Your task to perform on an android device: turn off translation in the chrome app Image 0: 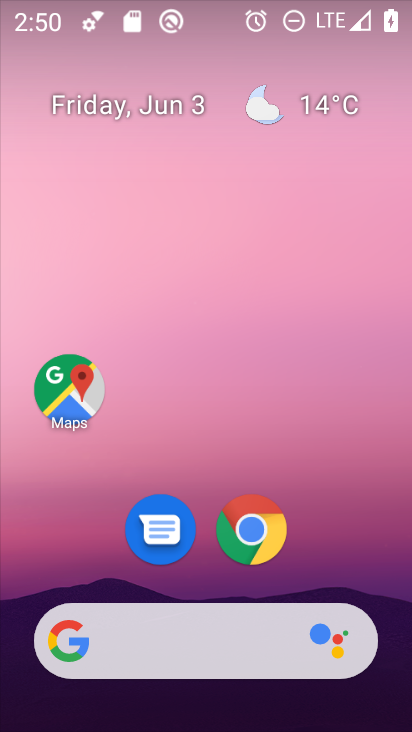
Step 0: drag from (362, 578) to (365, 271)
Your task to perform on an android device: turn off translation in the chrome app Image 1: 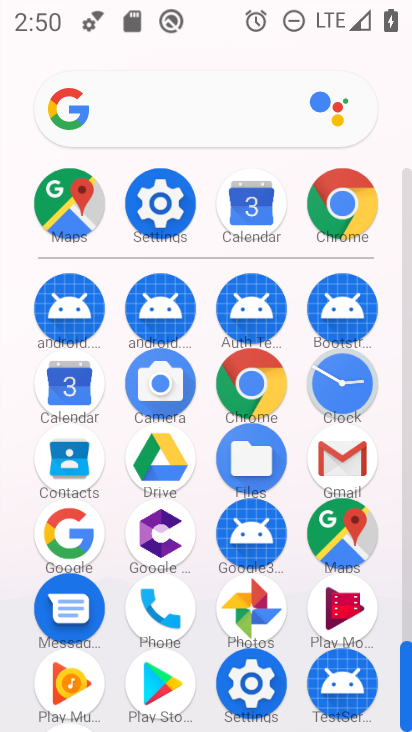
Step 1: click (254, 384)
Your task to perform on an android device: turn off translation in the chrome app Image 2: 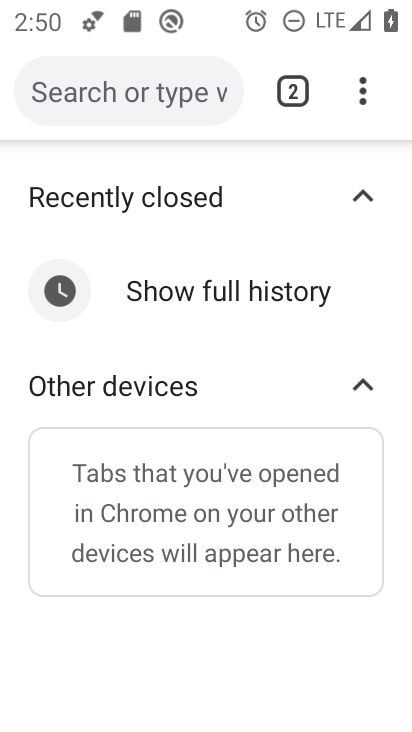
Step 2: click (362, 105)
Your task to perform on an android device: turn off translation in the chrome app Image 3: 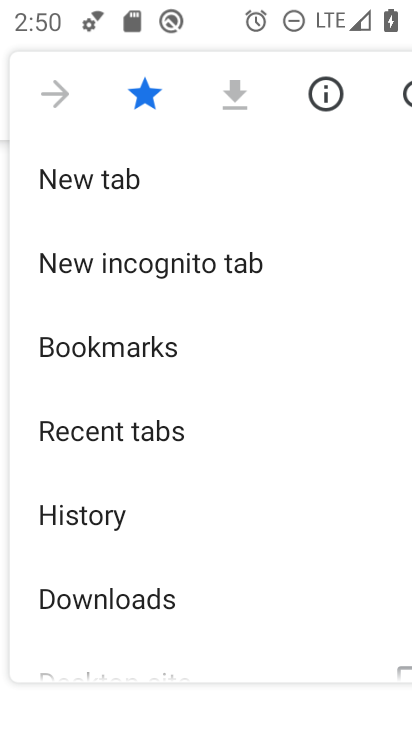
Step 3: drag from (296, 494) to (309, 415)
Your task to perform on an android device: turn off translation in the chrome app Image 4: 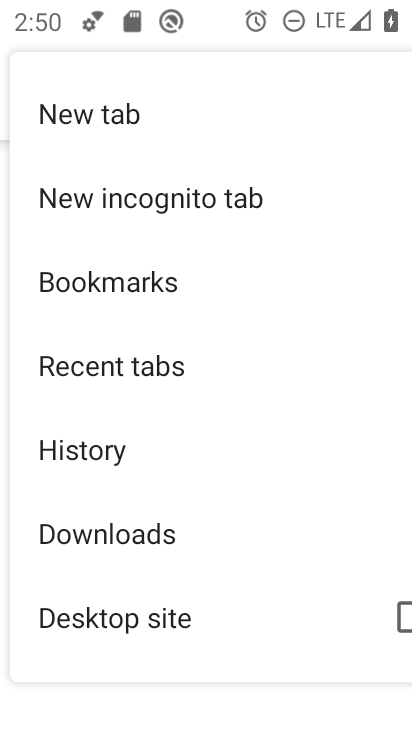
Step 4: drag from (300, 486) to (294, 374)
Your task to perform on an android device: turn off translation in the chrome app Image 5: 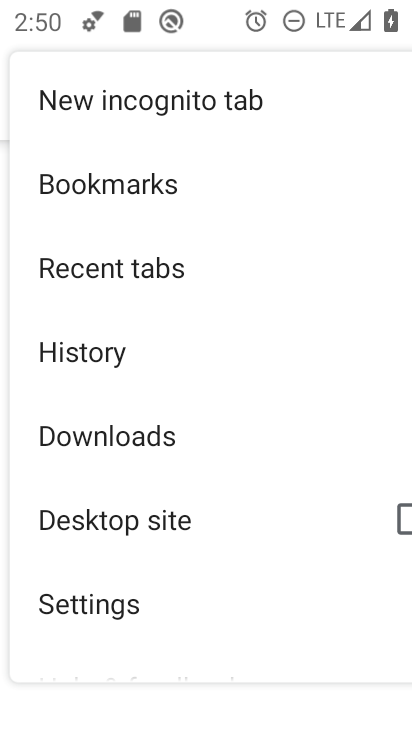
Step 5: drag from (303, 514) to (295, 383)
Your task to perform on an android device: turn off translation in the chrome app Image 6: 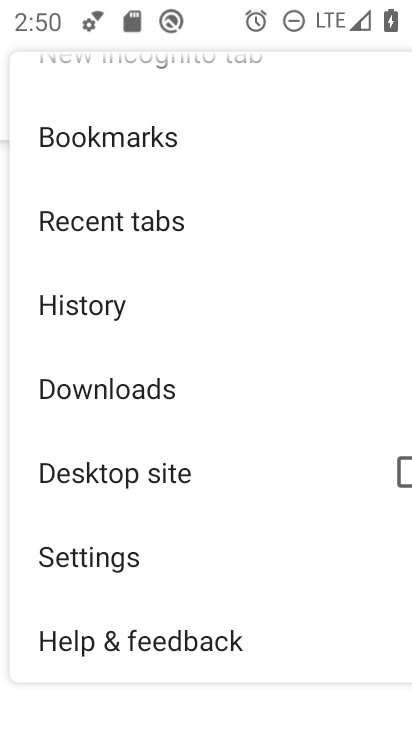
Step 6: click (144, 567)
Your task to perform on an android device: turn off translation in the chrome app Image 7: 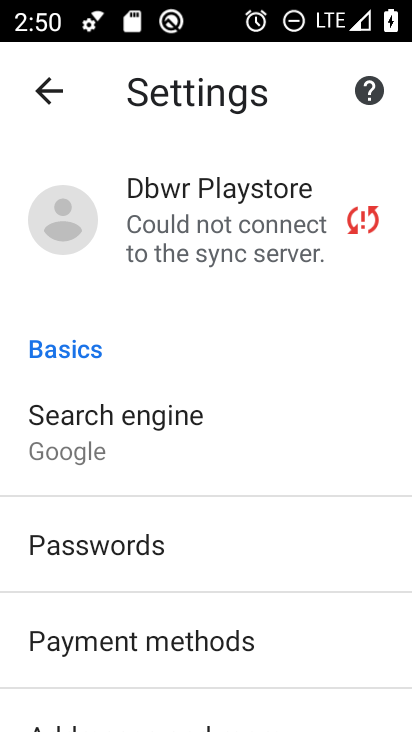
Step 7: drag from (292, 517) to (298, 427)
Your task to perform on an android device: turn off translation in the chrome app Image 8: 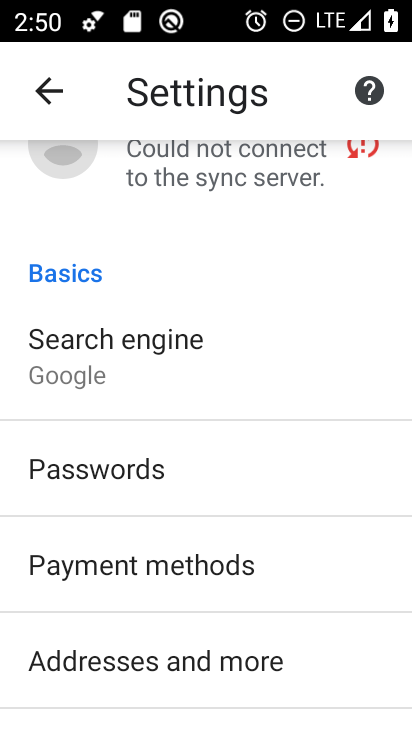
Step 8: drag from (316, 538) to (312, 424)
Your task to perform on an android device: turn off translation in the chrome app Image 9: 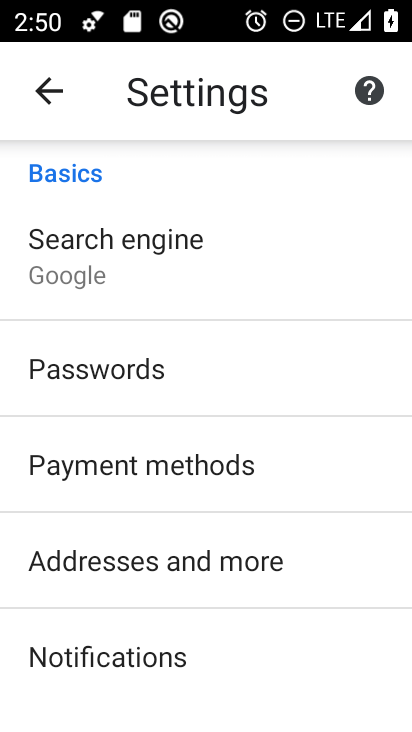
Step 9: drag from (327, 570) to (347, 436)
Your task to perform on an android device: turn off translation in the chrome app Image 10: 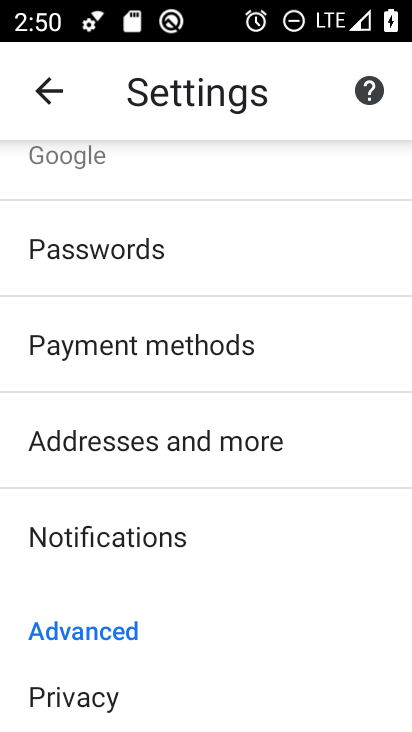
Step 10: drag from (345, 575) to (360, 430)
Your task to perform on an android device: turn off translation in the chrome app Image 11: 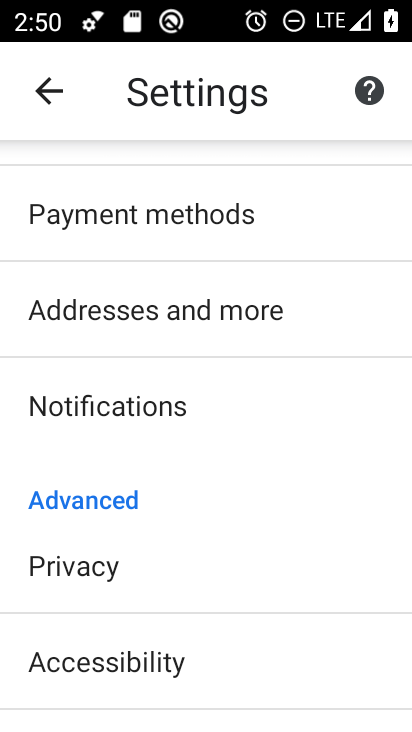
Step 11: drag from (343, 578) to (326, 481)
Your task to perform on an android device: turn off translation in the chrome app Image 12: 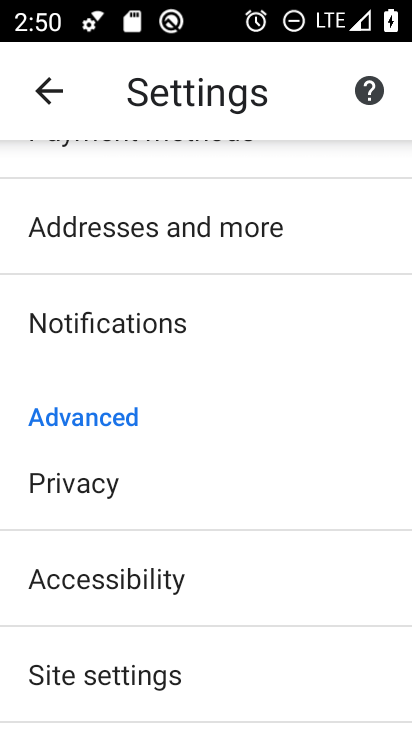
Step 12: drag from (324, 603) to (329, 499)
Your task to perform on an android device: turn off translation in the chrome app Image 13: 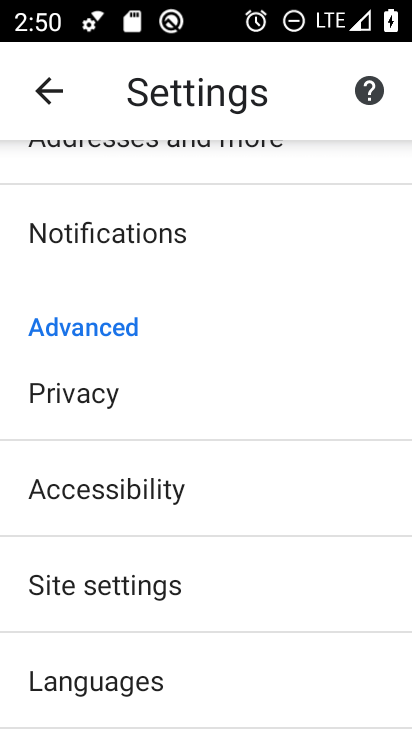
Step 13: drag from (333, 585) to (328, 458)
Your task to perform on an android device: turn off translation in the chrome app Image 14: 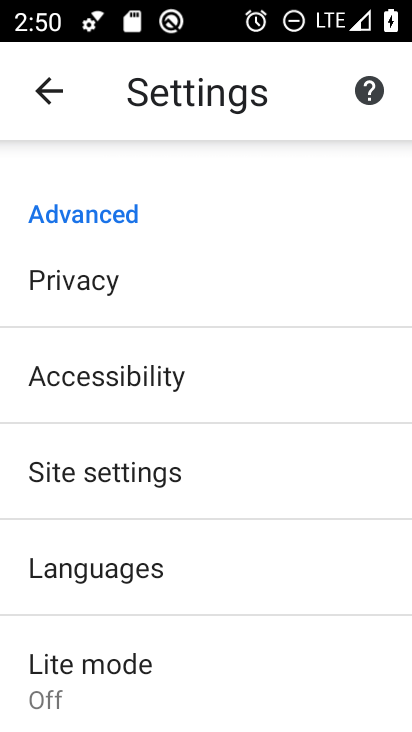
Step 14: drag from (323, 610) to (310, 493)
Your task to perform on an android device: turn off translation in the chrome app Image 15: 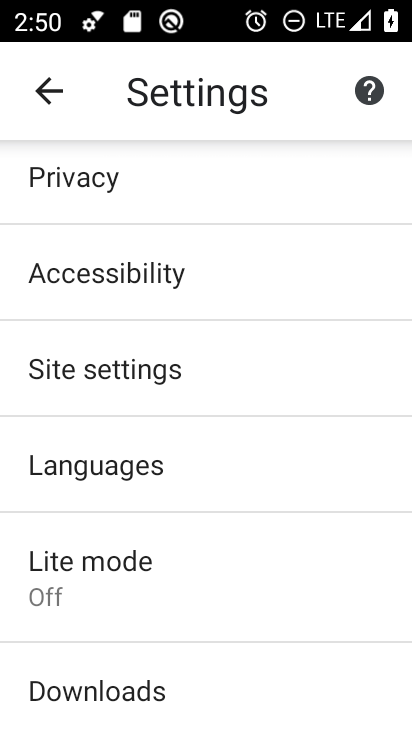
Step 15: drag from (302, 611) to (307, 471)
Your task to perform on an android device: turn off translation in the chrome app Image 16: 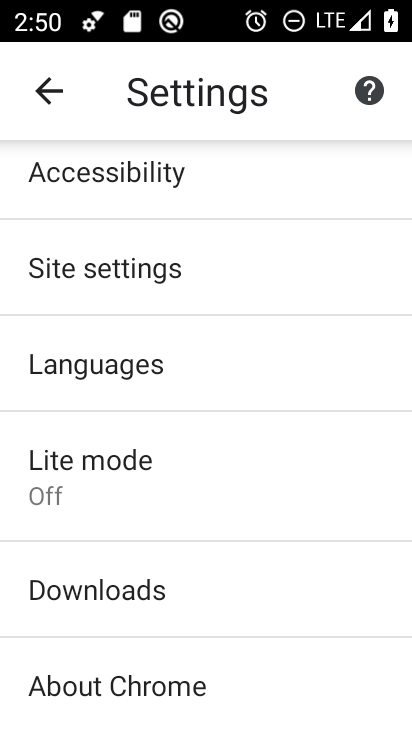
Step 16: drag from (322, 507) to (340, 378)
Your task to perform on an android device: turn off translation in the chrome app Image 17: 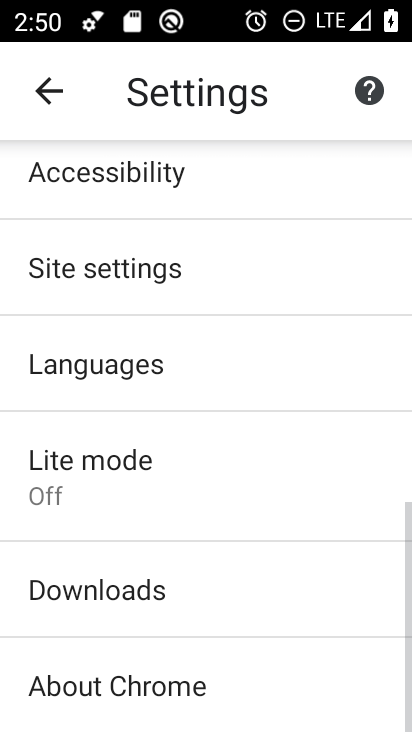
Step 17: drag from (332, 343) to (343, 461)
Your task to perform on an android device: turn off translation in the chrome app Image 18: 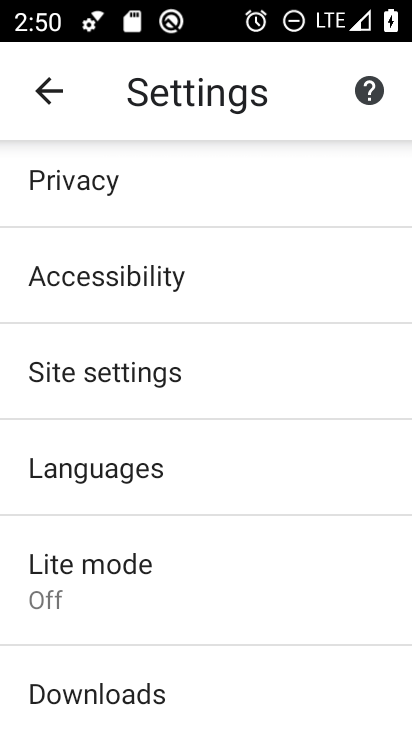
Step 18: click (305, 469)
Your task to perform on an android device: turn off translation in the chrome app Image 19: 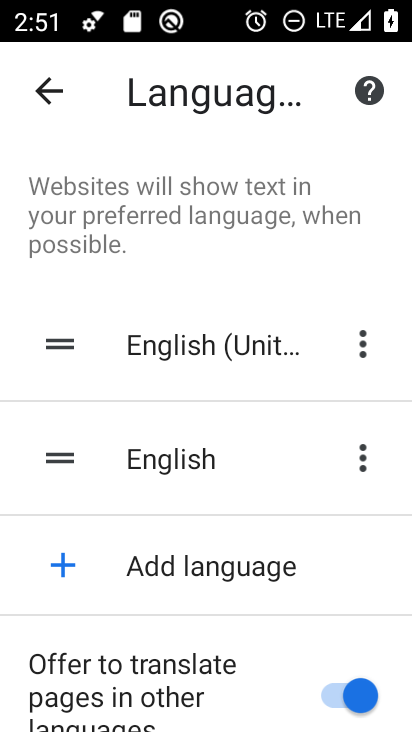
Step 19: drag from (290, 612) to (301, 435)
Your task to perform on an android device: turn off translation in the chrome app Image 20: 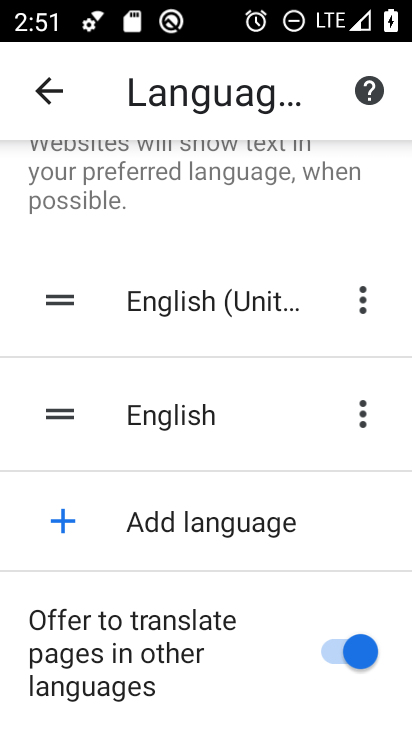
Step 20: click (339, 658)
Your task to perform on an android device: turn off translation in the chrome app Image 21: 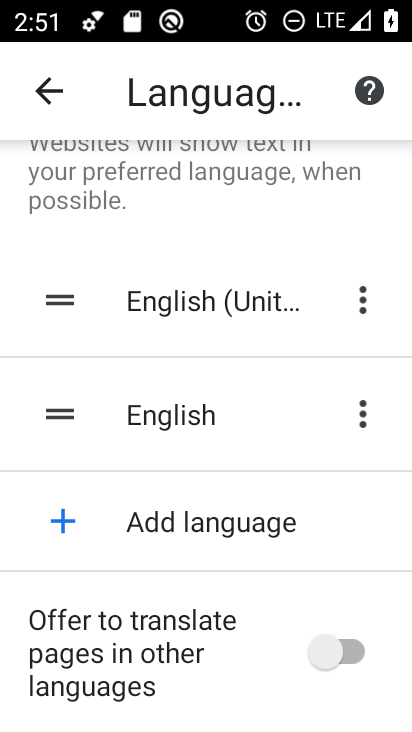
Step 21: task complete